Your task to perform on an android device: delete browsing data in the chrome app Image 0: 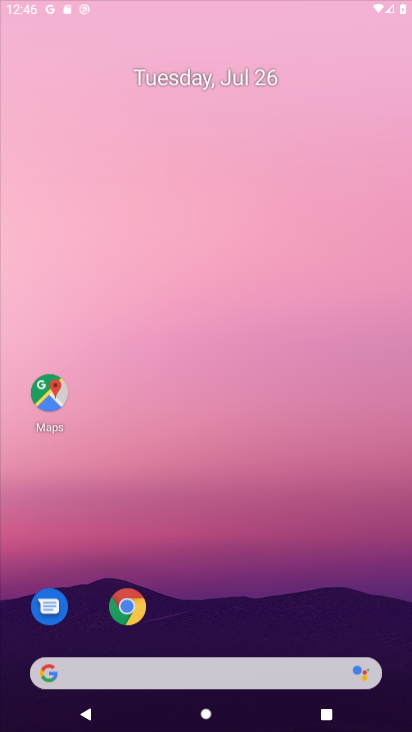
Step 0: drag from (204, 533) to (207, 161)
Your task to perform on an android device: delete browsing data in the chrome app Image 1: 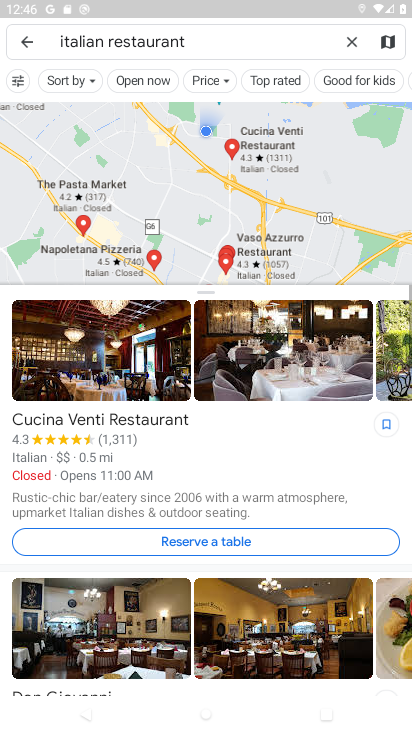
Step 1: press home button
Your task to perform on an android device: delete browsing data in the chrome app Image 2: 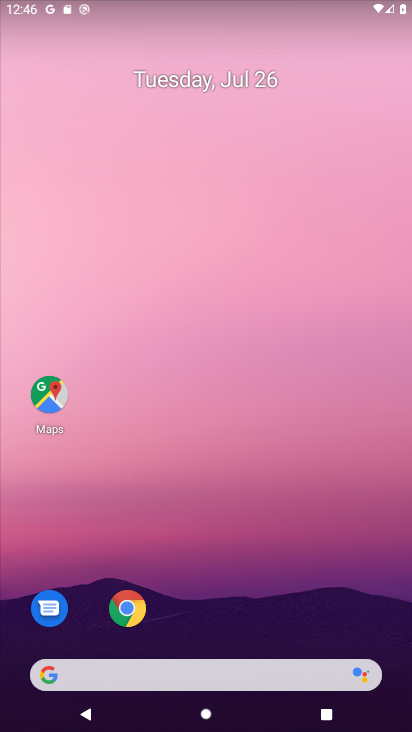
Step 2: click (128, 594)
Your task to perform on an android device: delete browsing data in the chrome app Image 3: 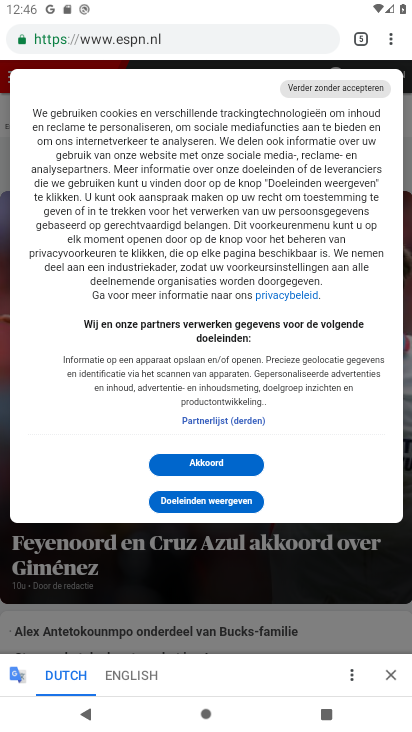
Step 3: press home button
Your task to perform on an android device: delete browsing data in the chrome app Image 4: 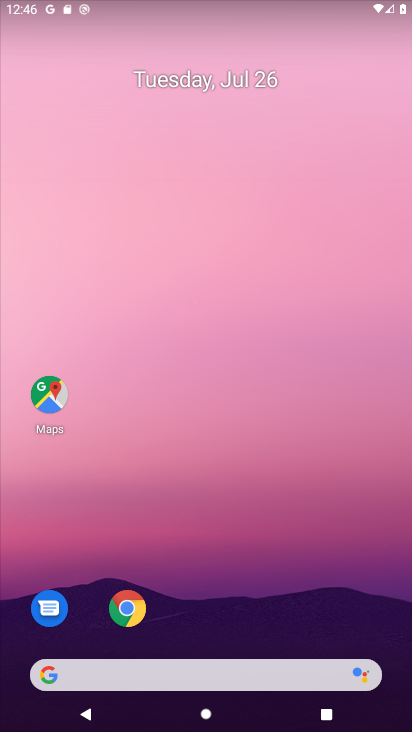
Step 4: click (49, 382)
Your task to perform on an android device: delete browsing data in the chrome app Image 5: 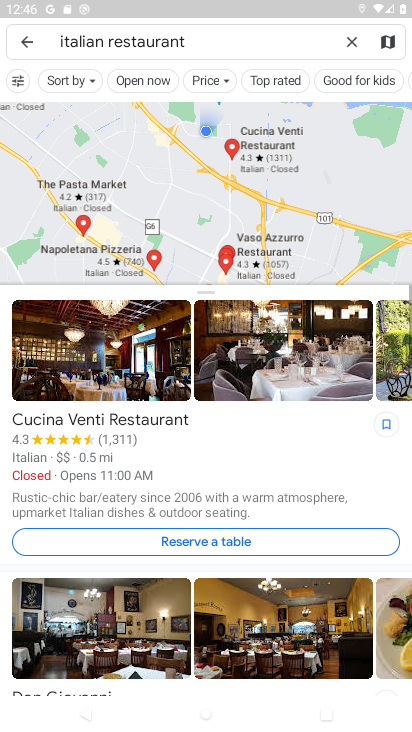
Step 5: press home button
Your task to perform on an android device: delete browsing data in the chrome app Image 6: 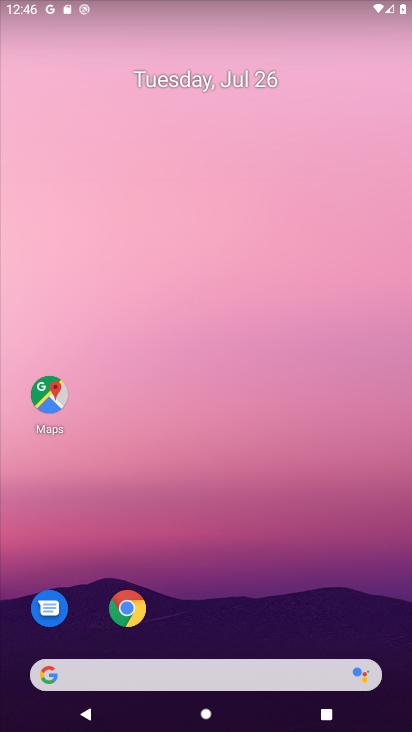
Step 6: click (138, 608)
Your task to perform on an android device: delete browsing data in the chrome app Image 7: 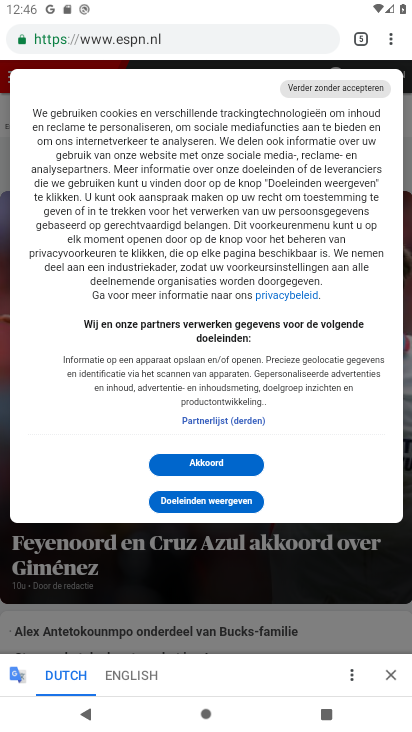
Step 7: click (399, 33)
Your task to perform on an android device: delete browsing data in the chrome app Image 8: 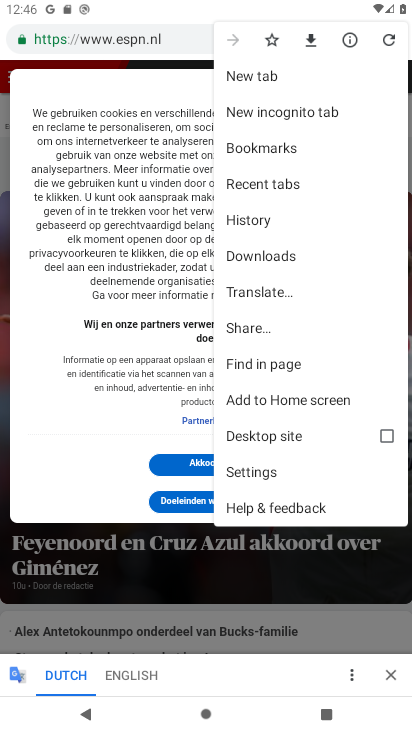
Step 8: click (276, 223)
Your task to perform on an android device: delete browsing data in the chrome app Image 9: 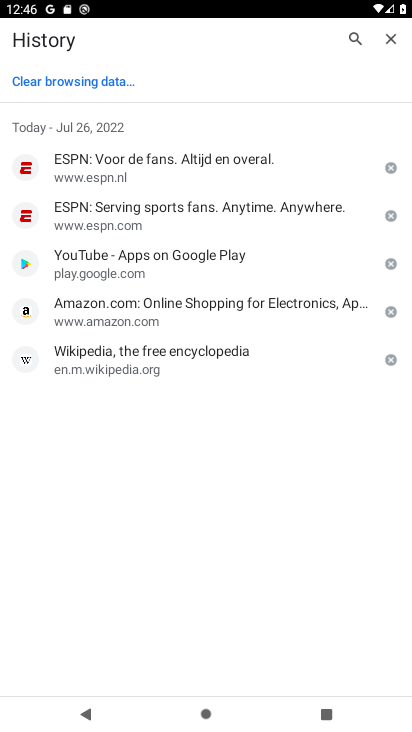
Step 9: click (90, 75)
Your task to perform on an android device: delete browsing data in the chrome app Image 10: 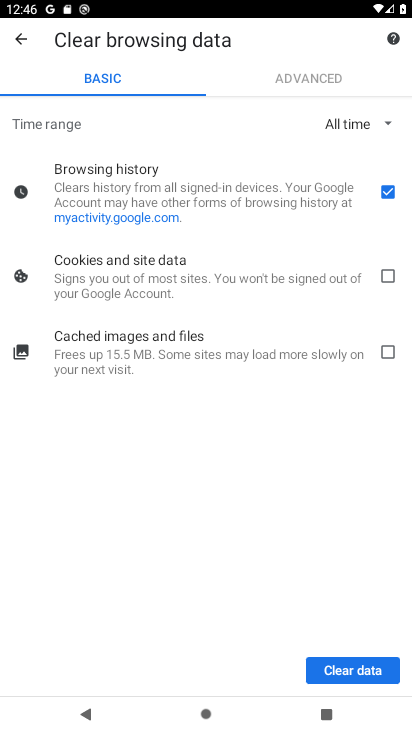
Step 10: click (368, 689)
Your task to perform on an android device: delete browsing data in the chrome app Image 11: 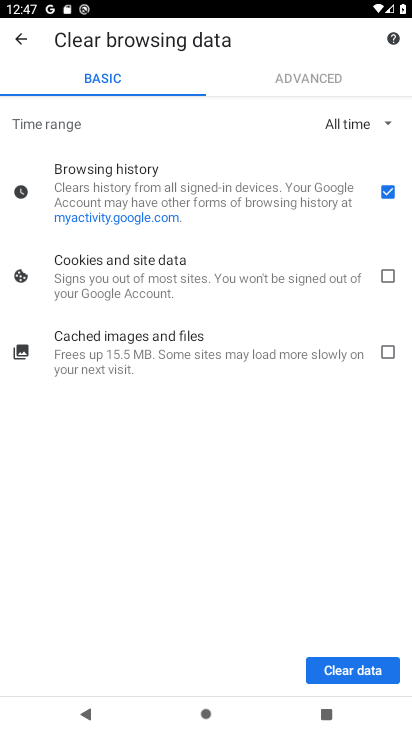
Step 11: click (342, 677)
Your task to perform on an android device: delete browsing data in the chrome app Image 12: 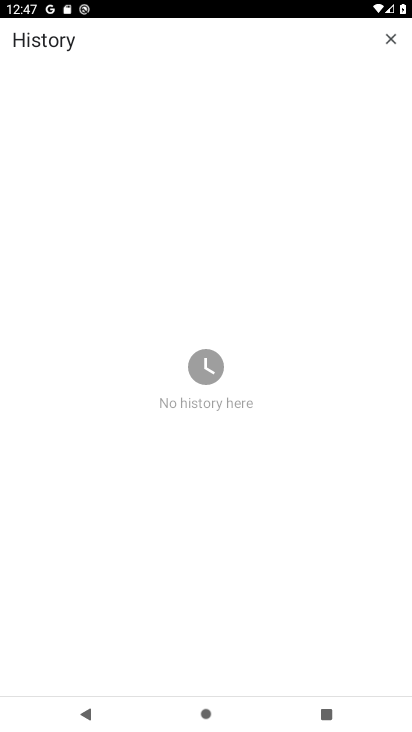
Step 12: task complete